Your task to perform on an android device: Go to calendar. Show me events next week Image 0: 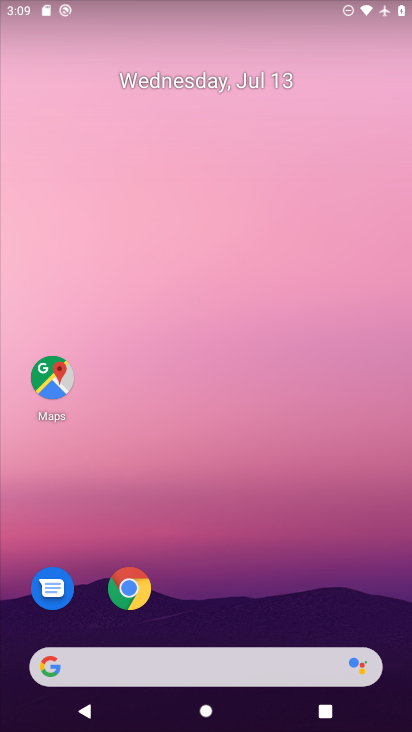
Step 0: click (134, 596)
Your task to perform on an android device: Go to calendar. Show me events next week Image 1: 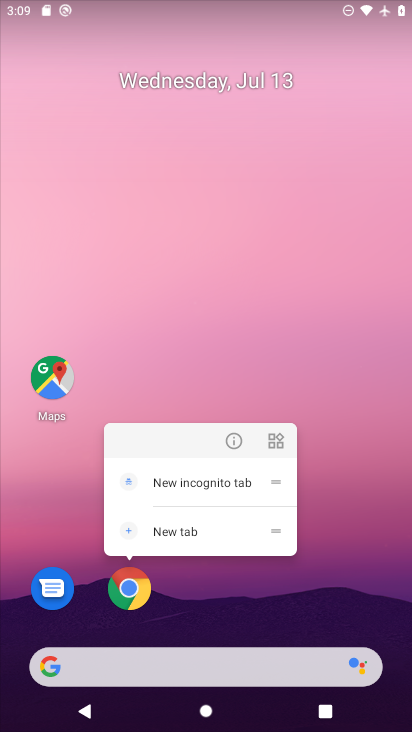
Step 1: click (314, 531)
Your task to perform on an android device: Go to calendar. Show me events next week Image 2: 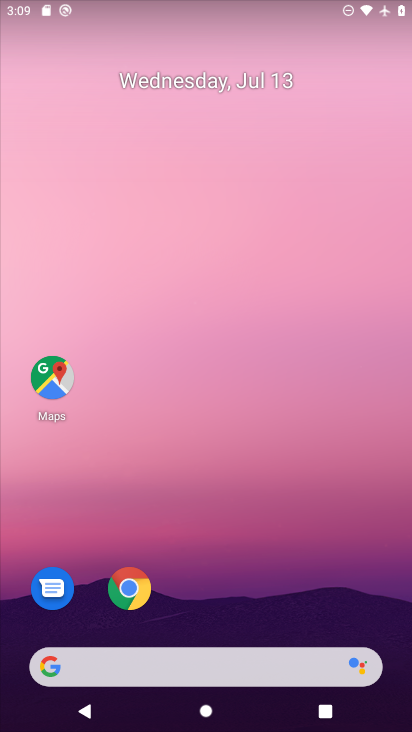
Step 2: drag from (230, 628) to (241, 69)
Your task to perform on an android device: Go to calendar. Show me events next week Image 3: 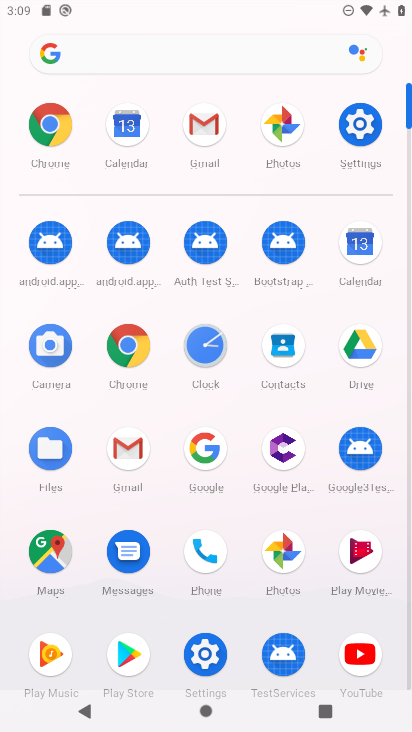
Step 3: click (363, 237)
Your task to perform on an android device: Go to calendar. Show me events next week Image 4: 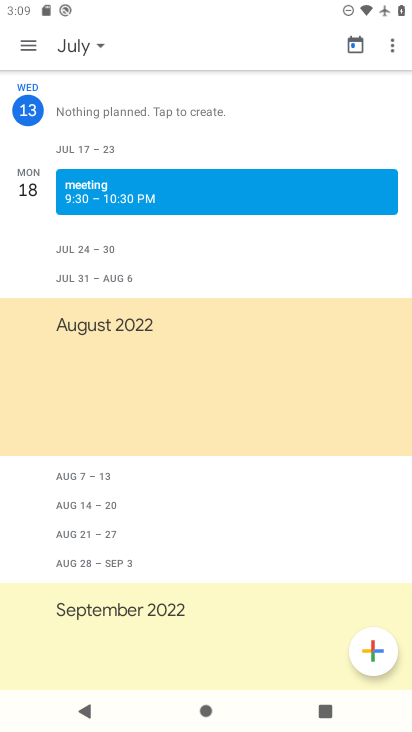
Step 4: click (24, 51)
Your task to perform on an android device: Go to calendar. Show me events next week Image 5: 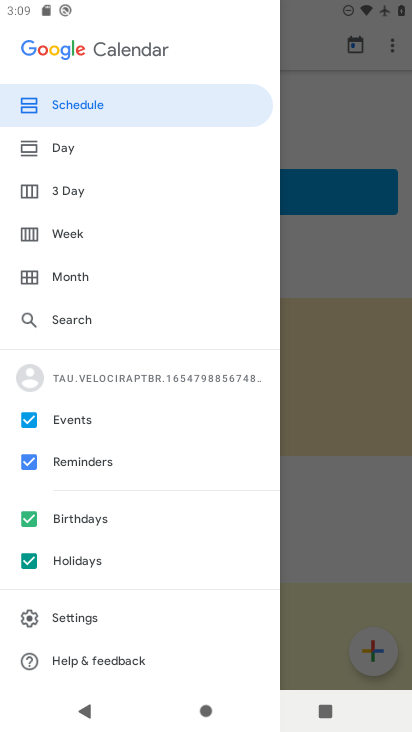
Step 5: click (75, 235)
Your task to perform on an android device: Go to calendar. Show me events next week Image 6: 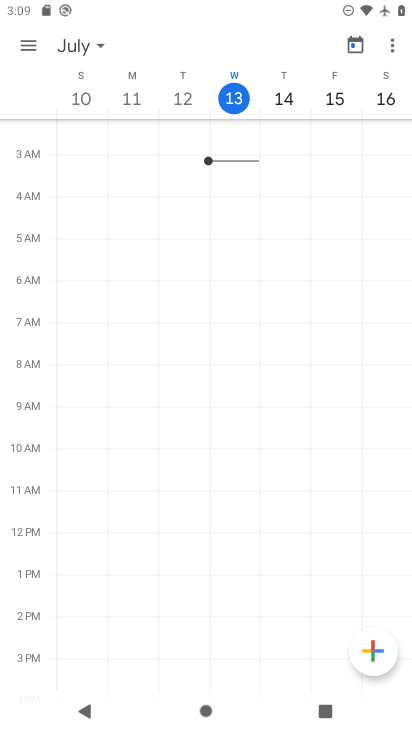
Step 6: task complete